Your task to perform on an android device: install app "TextNow: Call + Text Unlimited" Image 0: 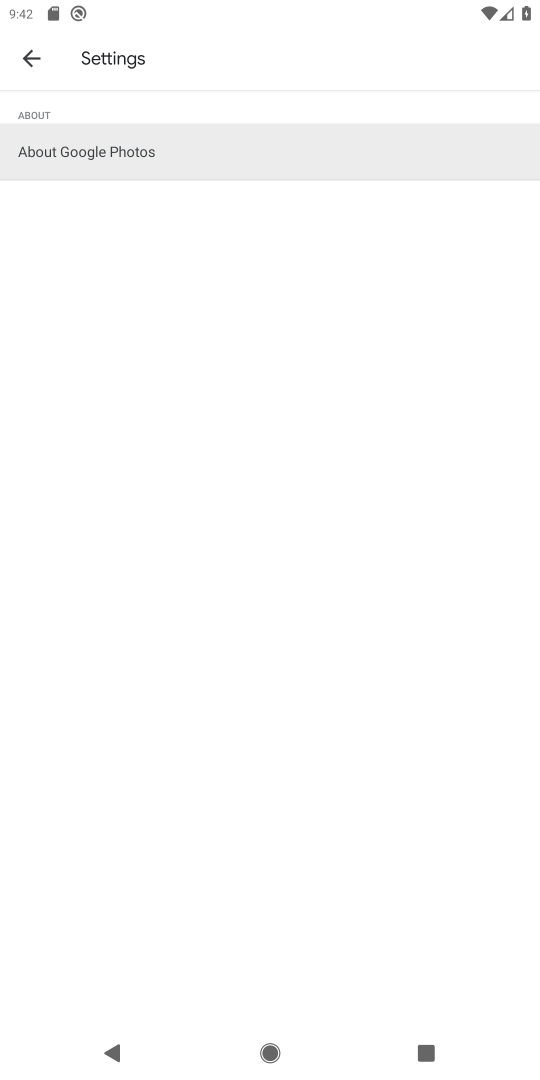
Step 0: press home button
Your task to perform on an android device: install app "TextNow: Call + Text Unlimited" Image 1: 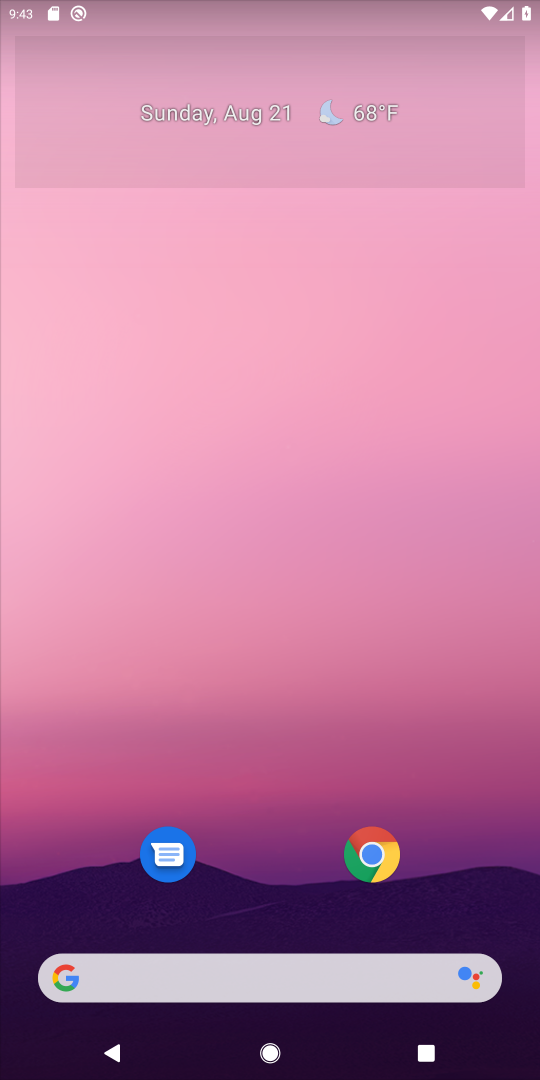
Step 1: drag from (316, 936) to (324, 360)
Your task to perform on an android device: install app "TextNow: Call + Text Unlimited" Image 2: 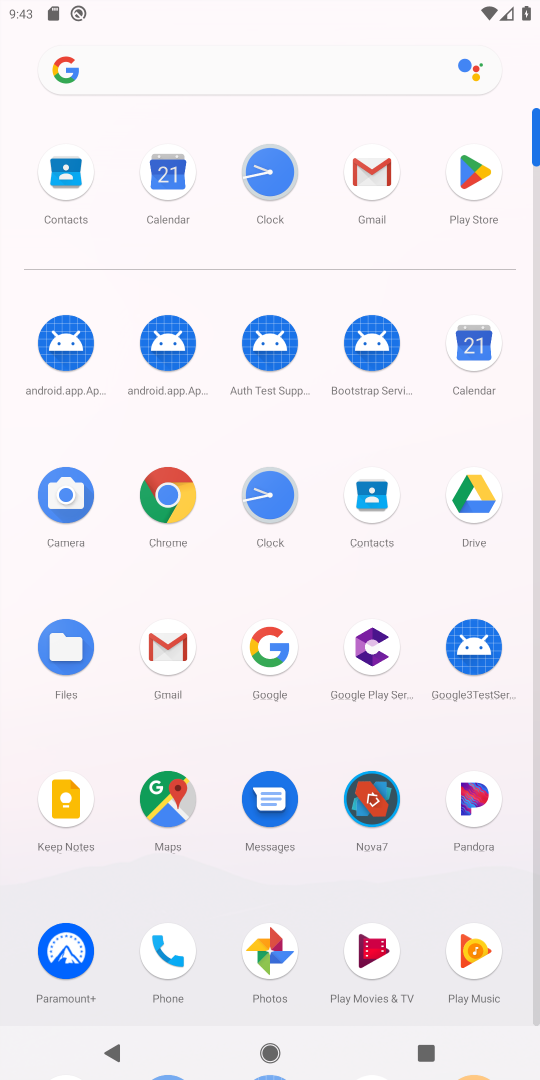
Step 2: click (470, 227)
Your task to perform on an android device: install app "TextNow: Call + Text Unlimited" Image 3: 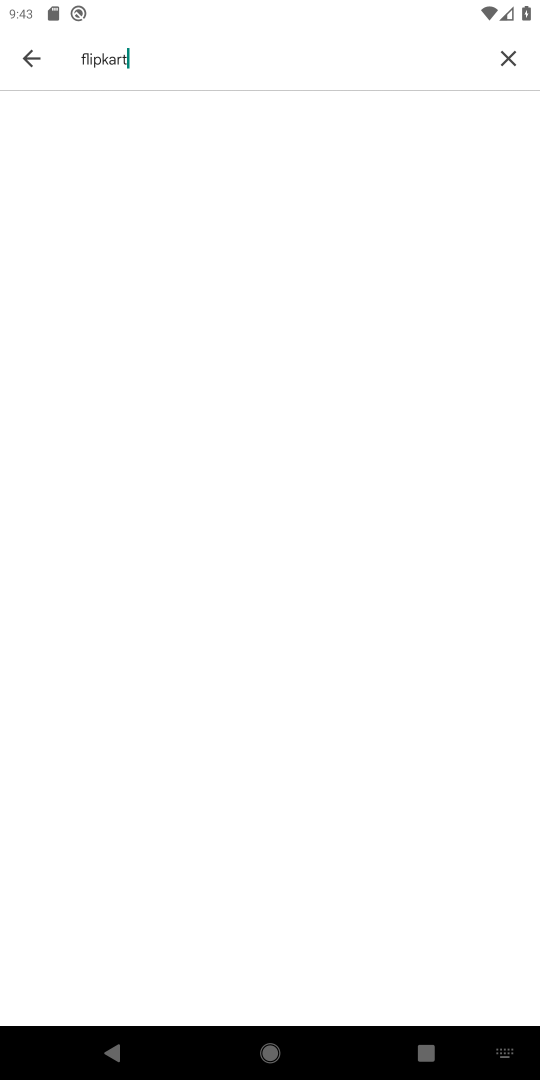
Step 3: click (500, 52)
Your task to perform on an android device: install app "TextNow: Call + Text Unlimited" Image 4: 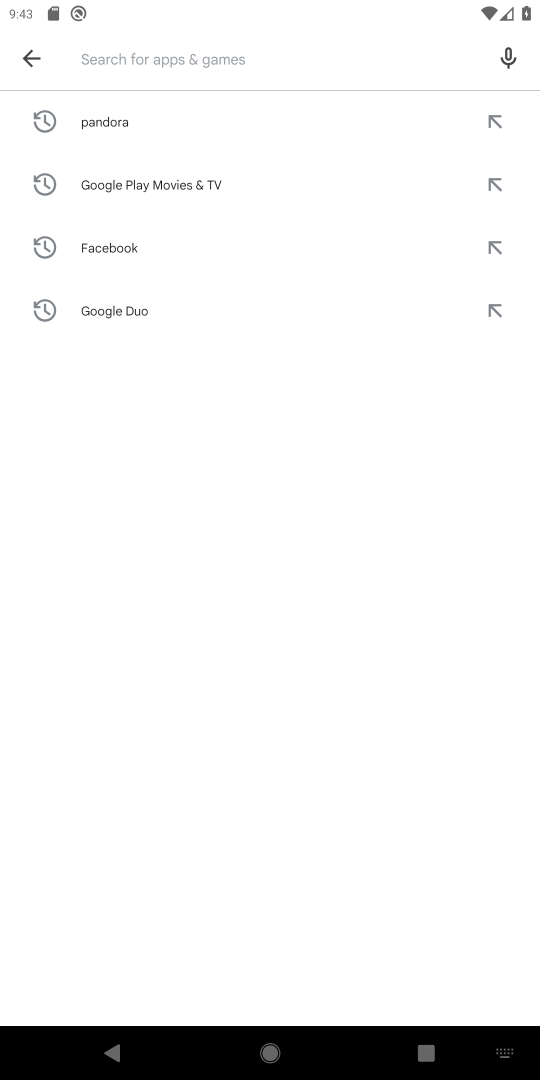
Step 4: type "textnow"
Your task to perform on an android device: install app "TextNow: Call + Text Unlimited" Image 5: 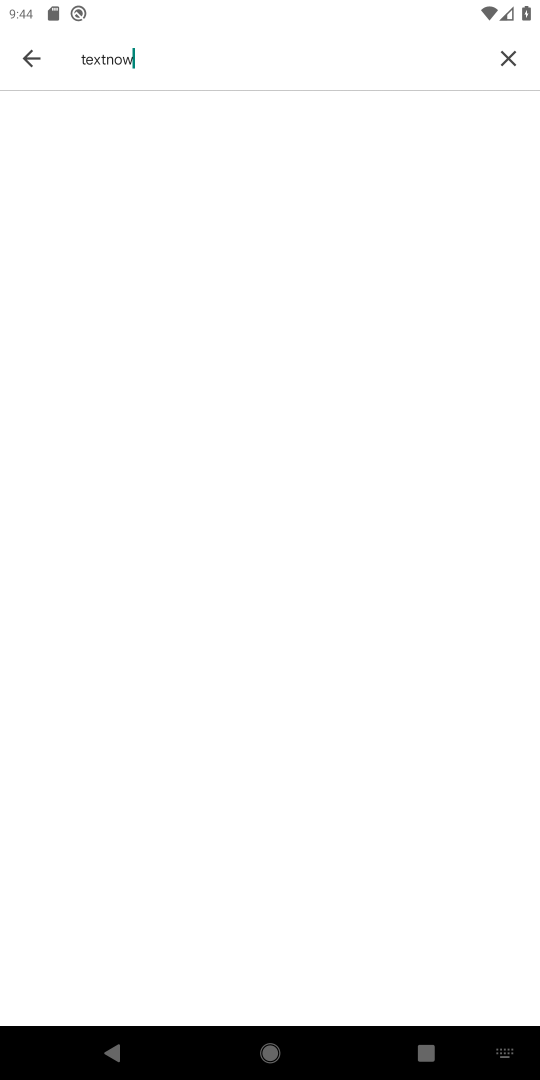
Step 5: task complete